Your task to perform on an android device: Open the stopwatch Image 0: 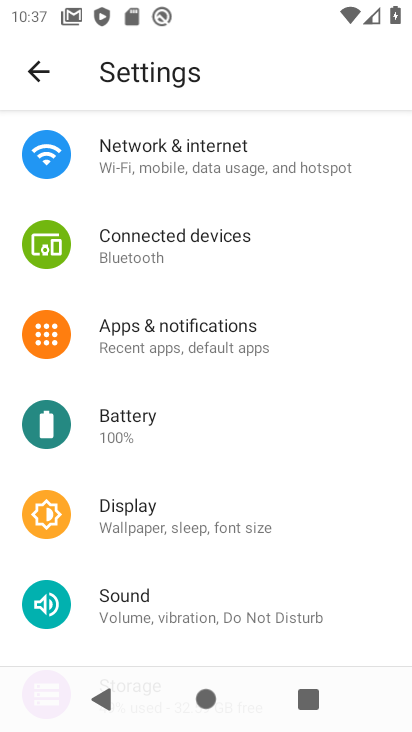
Step 0: press home button
Your task to perform on an android device: Open the stopwatch Image 1: 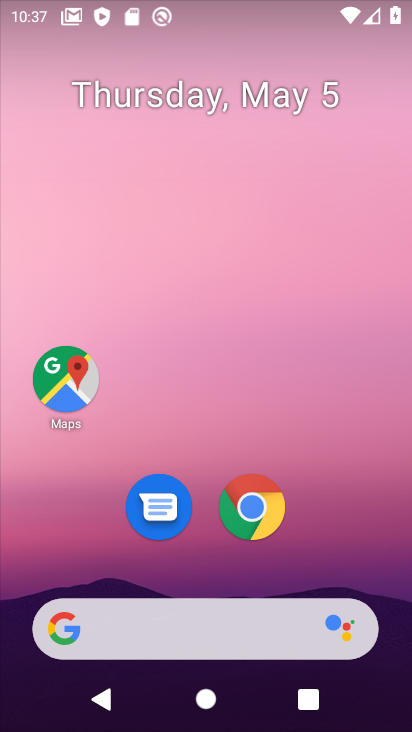
Step 1: drag from (371, 558) to (389, 7)
Your task to perform on an android device: Open the stopwatch Image 2: 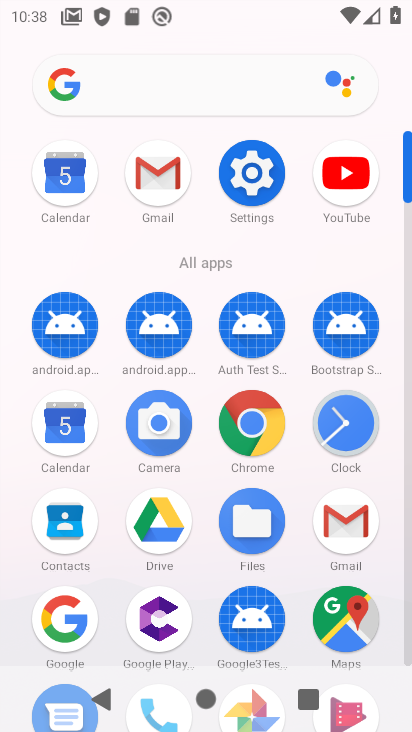
Step 2: click (340, 425)
Your task to perform on an android device: Open the stopwatch Image 3: 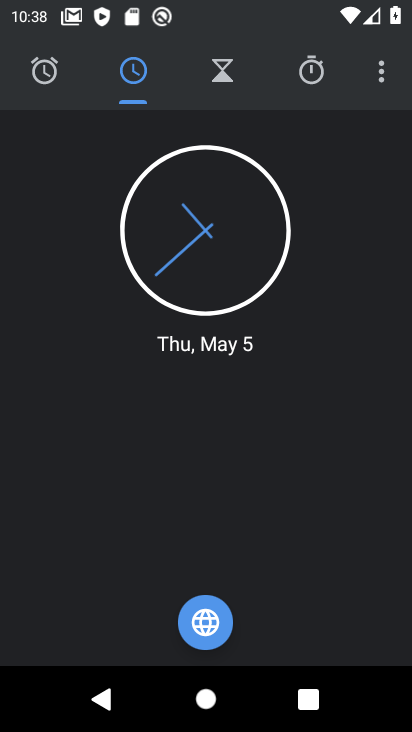
Step 3: click (310, 76)
Your task to perform on an android device: Open the stopwatch Image 4: 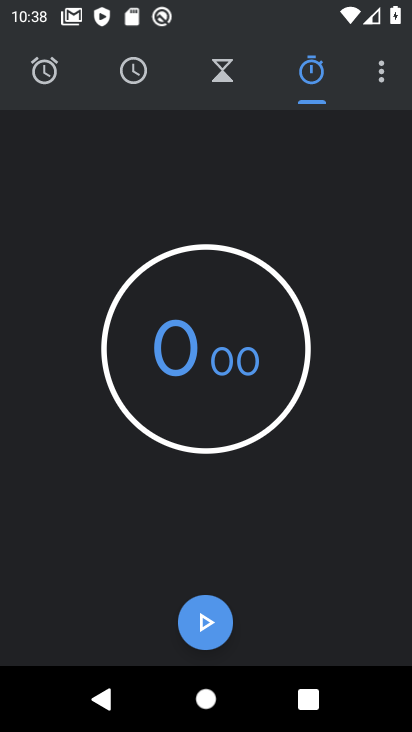
Step 4: click (205, 626)
Your task to perform on an android device: Open the stopwatch Image 5: 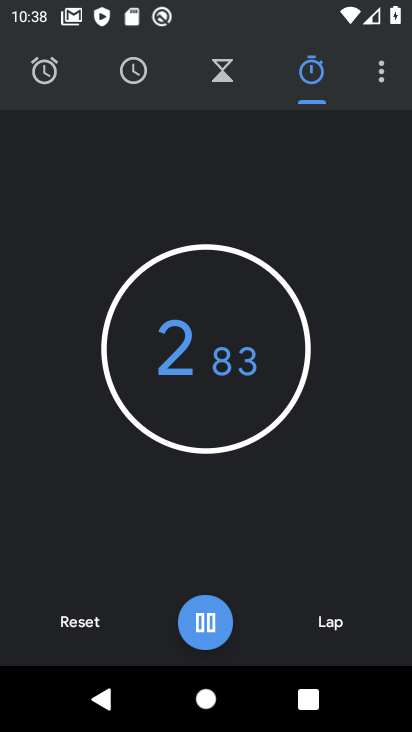
Step 5: click (205, 626)
Your task to perform on an android device: Open the stopwatch Image 6: 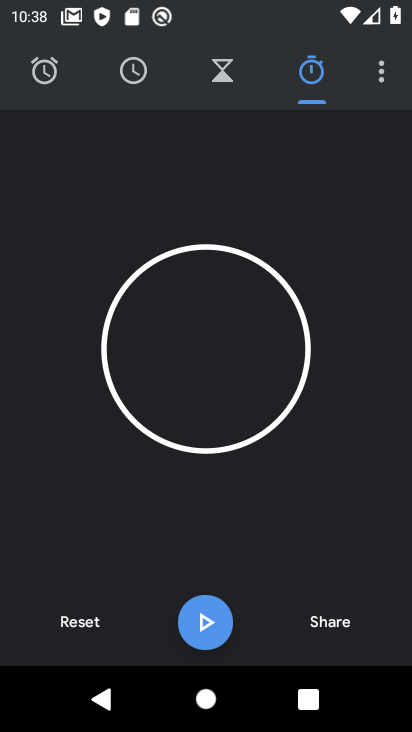
Step 6: task complete